Your task to perform on an android device: Open Google Chrome and open the bookmarks view Image 0: 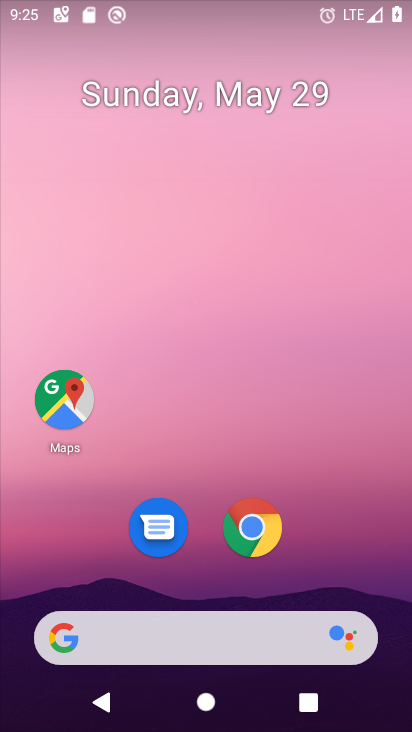
Step 0: press home button
Your task to perform on an android device: Open Google Chrome and open the bookmarks view Image 1: 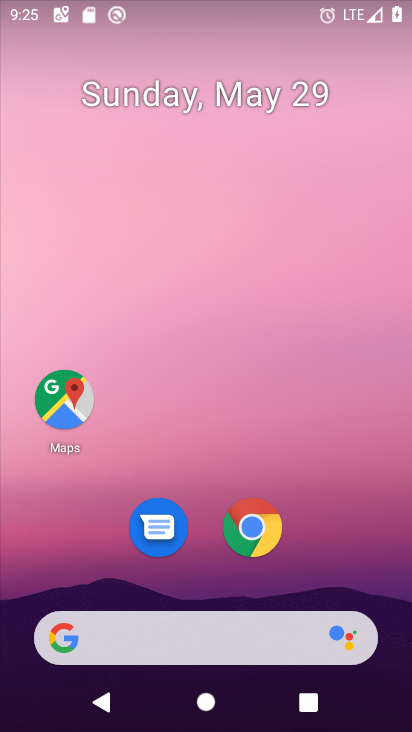
Step 1: click (245, 525)
Your task to perform on an android device: Open Google Chrome and open the bookmarks view Image 2: 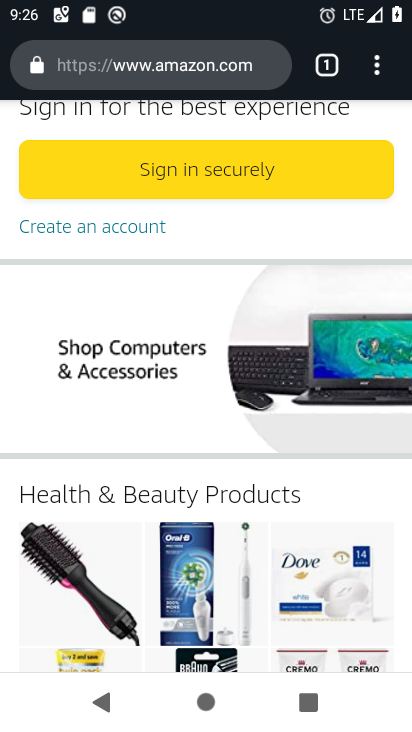
Step 2: click (325, 64)
Your task to perform on an android device: Open Google Chrome and open the bookmarks view Image 3: 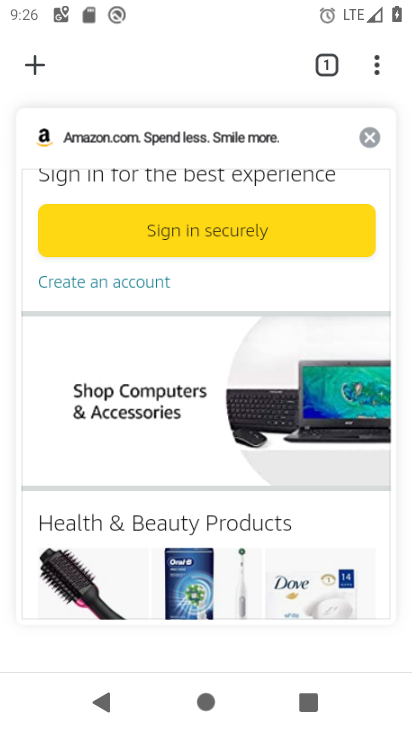
Step 3: click (175, 200)
Your task to perform on an android device: Open Google Chrome and open the bookmarks view Image 4: 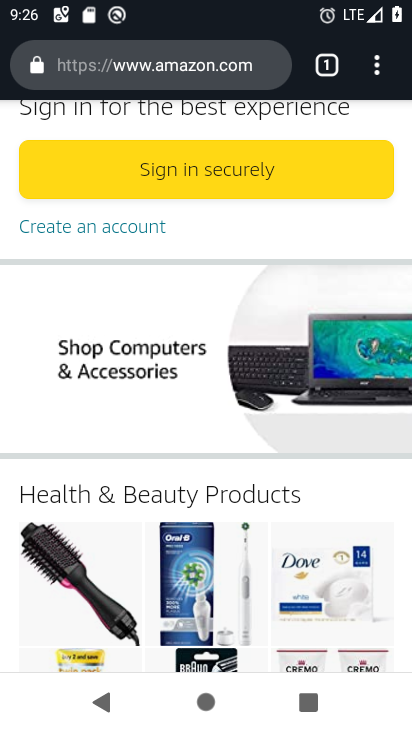
Step 4: click (378, 67)
Your task to perform on an android device: Open Google Chrome and open the bookmarks view Image 5: 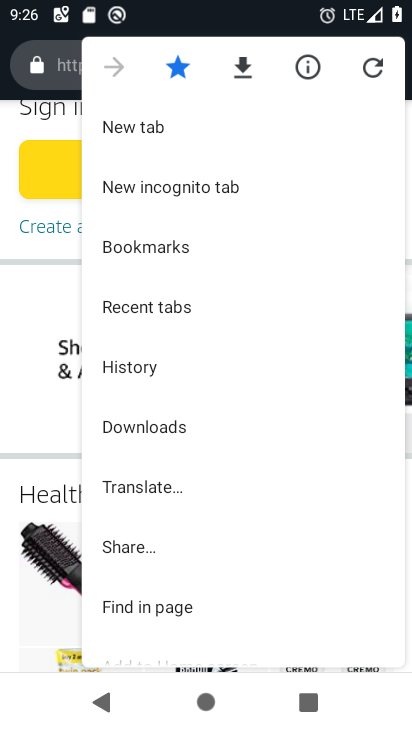
Step 5: click (199, 238)
Your task to perform on an android device: Open Google Chrome and open the bookmarks view Image 6: 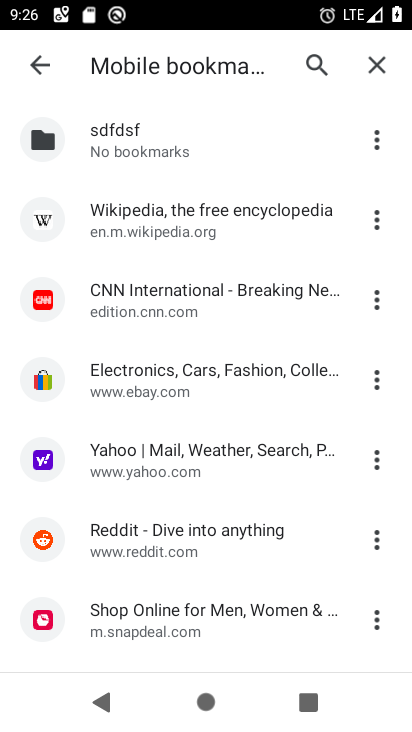
Step 6: task complete